Your task to perform on an android device: Open settings on Google Maps Image 0: 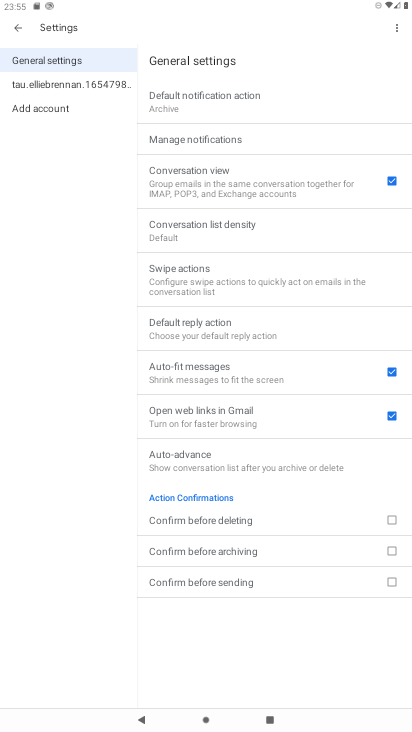
Step 0: press home button
Your task to perform on an android device: Open settings on Google Maps Image 1: 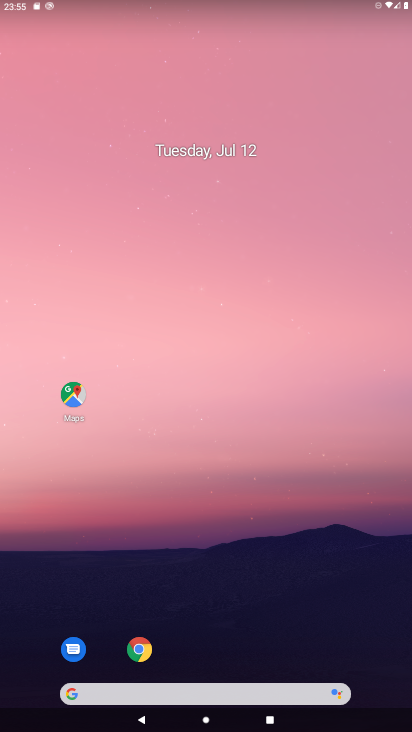
Step 1: click (74, 393)
Your task to perform on an android device: Open settings on Google Maps Image 2: 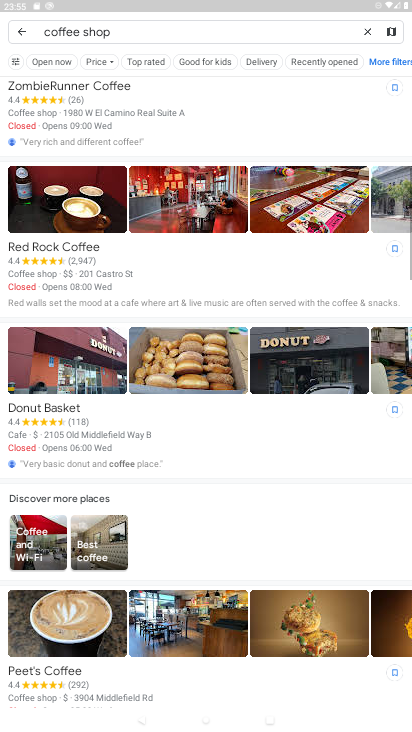
Step 2: click (366, 25)
Your task to perform on an android device: Open settings on Google Maps Image 3: 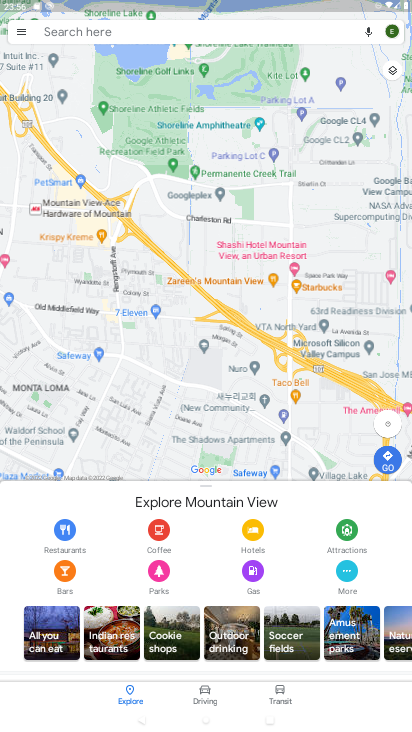
Step 3: click (15, 28)
Your task to perform on an android device: Open settings on Google Maps Image 4: 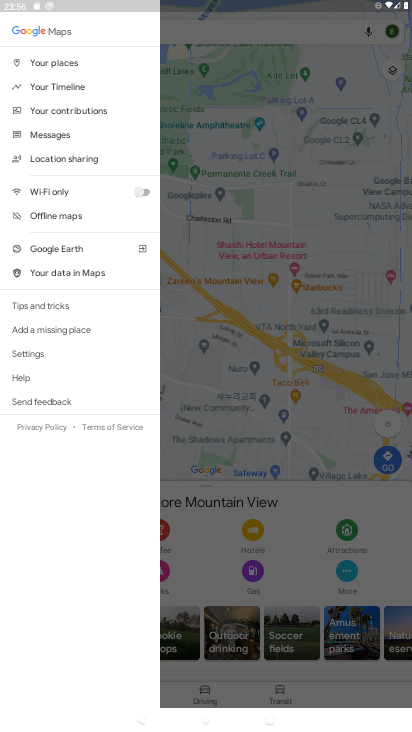
Step 4: click (26, 352)
Your task to perform on an android device: Open settings on Google Maps Image 5: 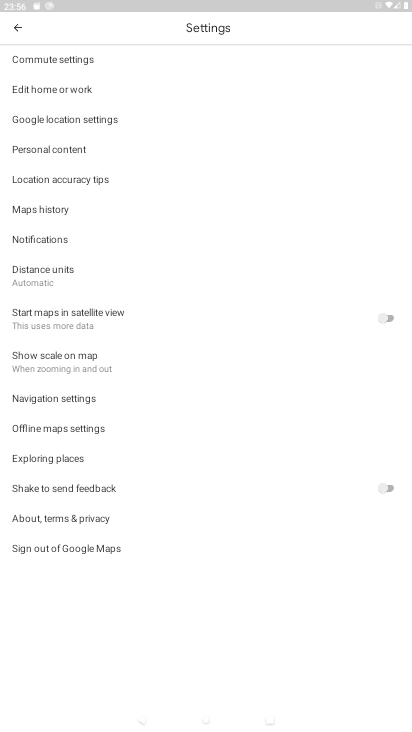
Step 5: task complete